Your task to perform on an android device: Search for a coffee table on Crate & Barrel Image 0: 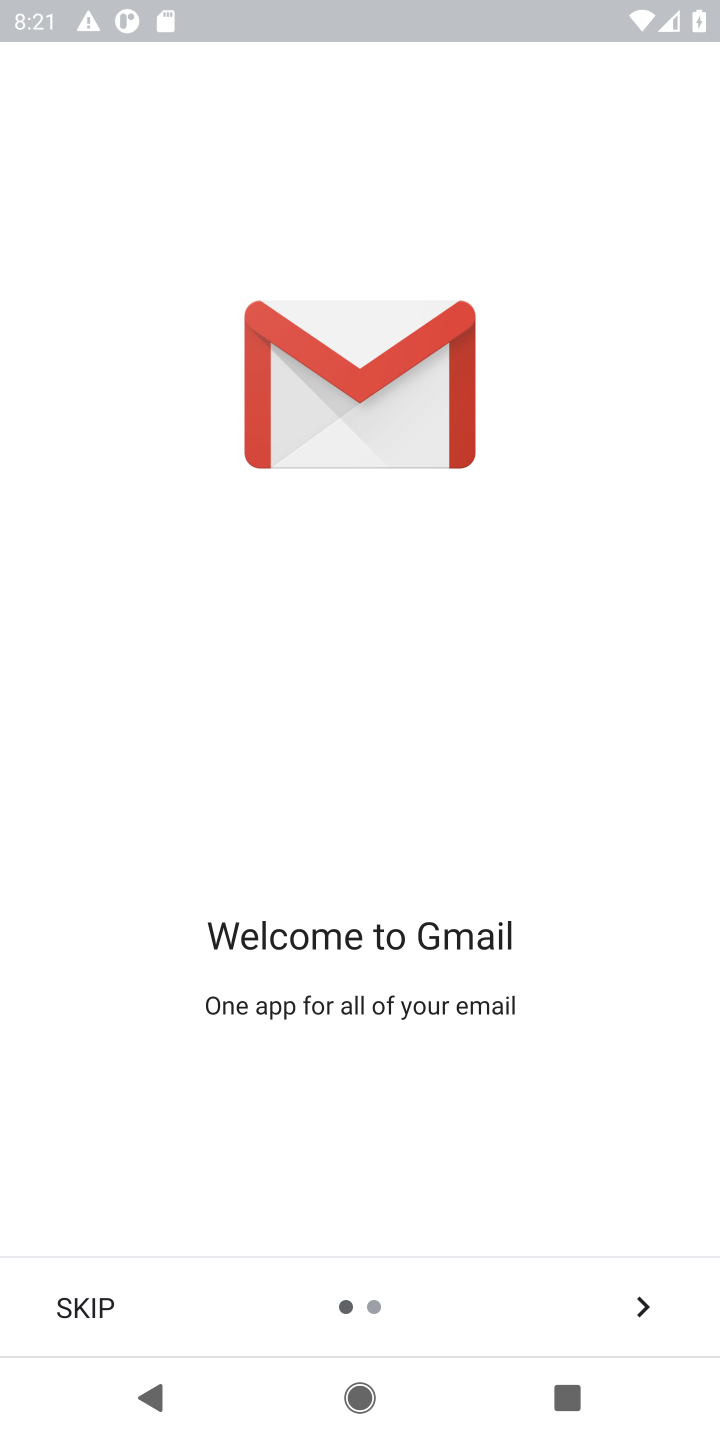
Step 0: press home button
Your task to perform on an android device: Search for a coffee table on Crate & Barrel Image 1: 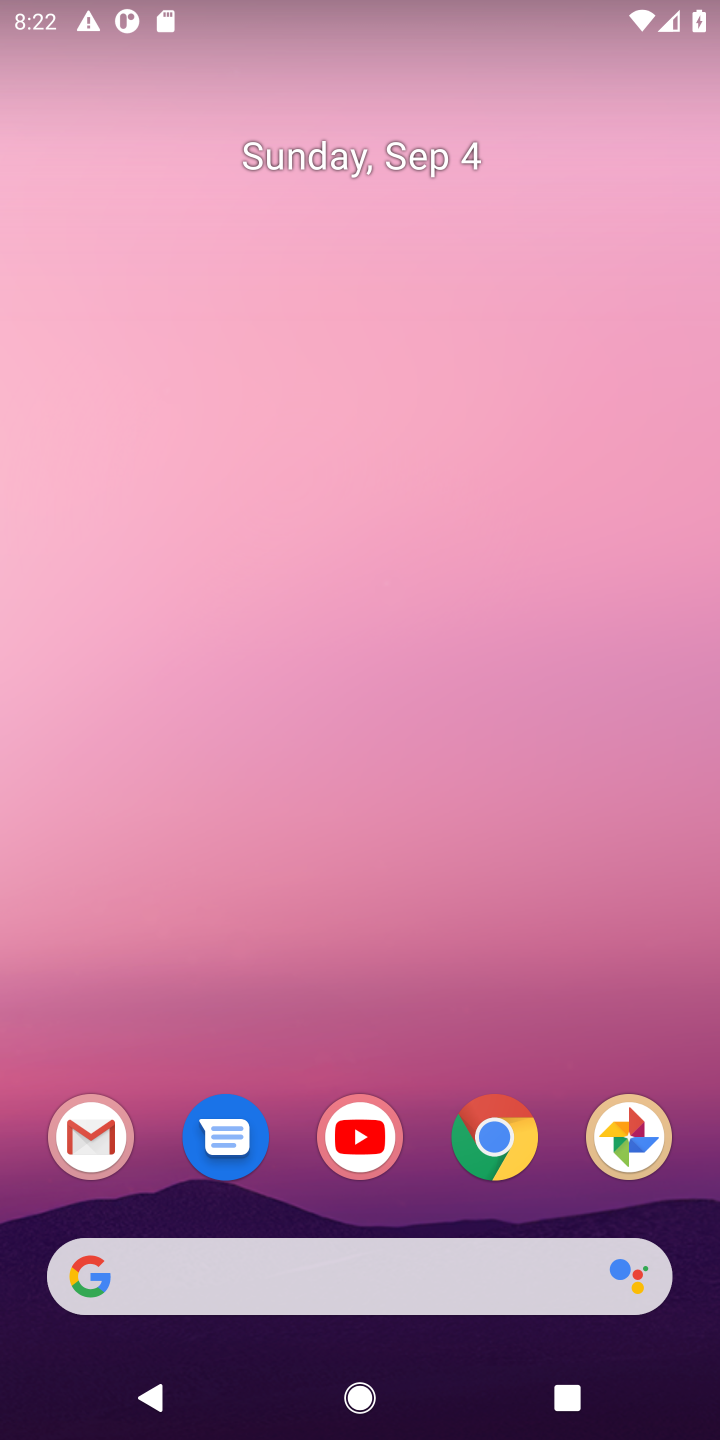
Step 1: click (498, 1137)
Your task to perform on an android device: Search for a coffee table on Crate & Barrel Image 2: 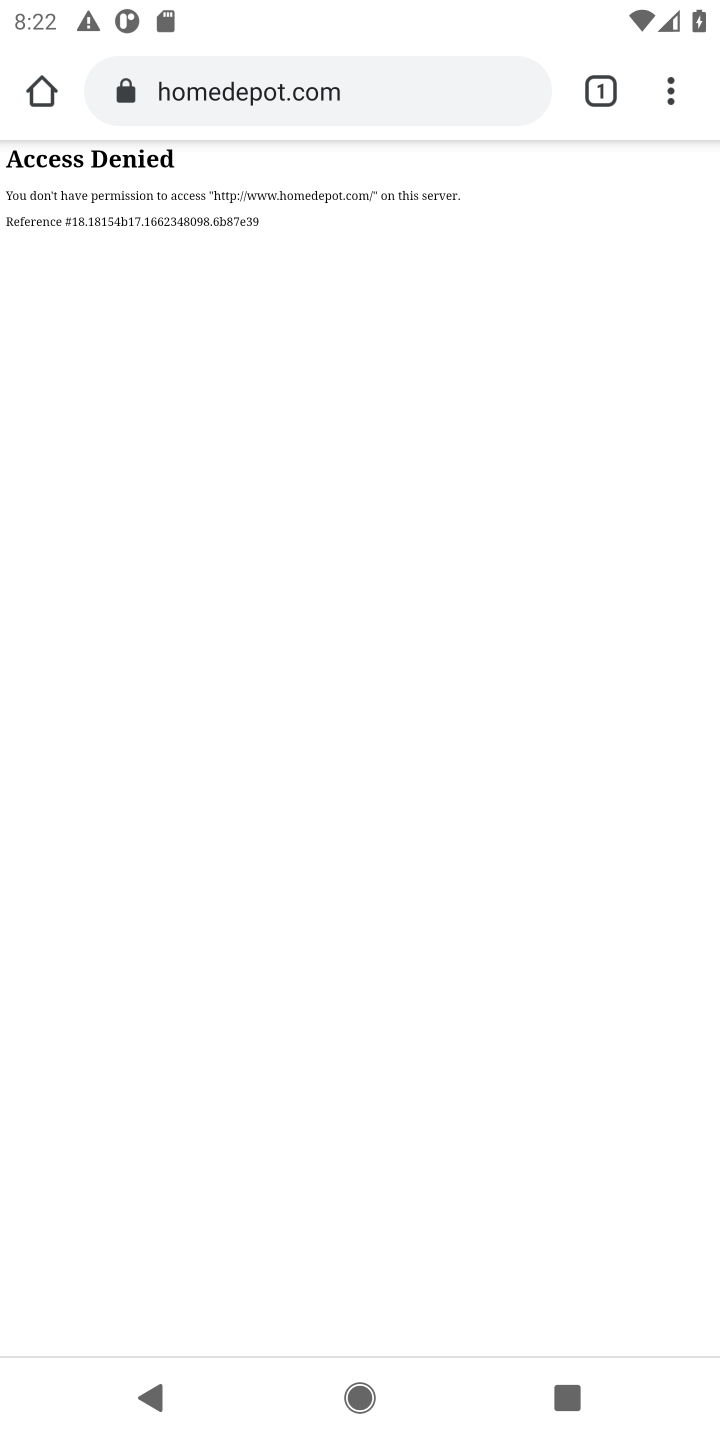
Step 2: click (436, 80)
Your task to perform on an android device: Search for a coffee table on Crate & Barrel Image 3: 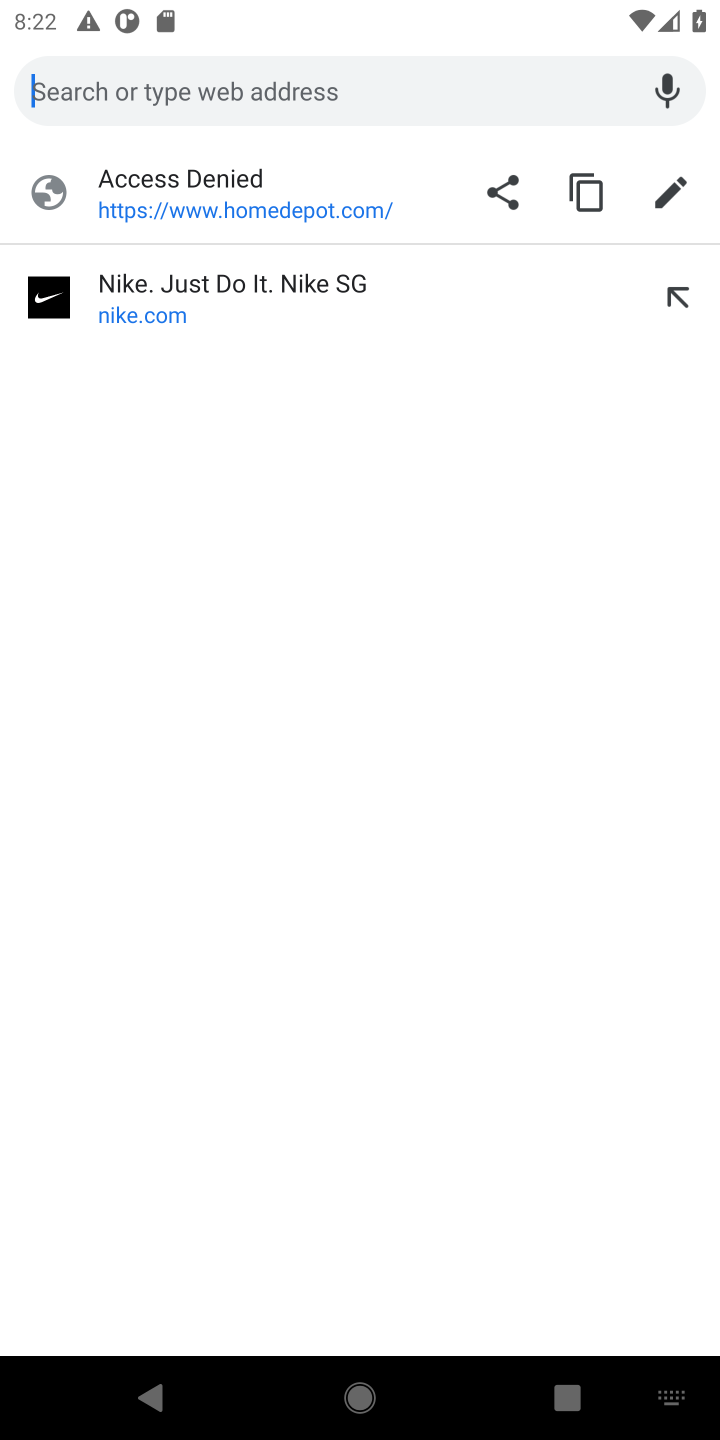
Step 3: type "Crate & Barrel"
Your task to perform on an android device: Search for a coffee table on Crate & Barrel Image 4: 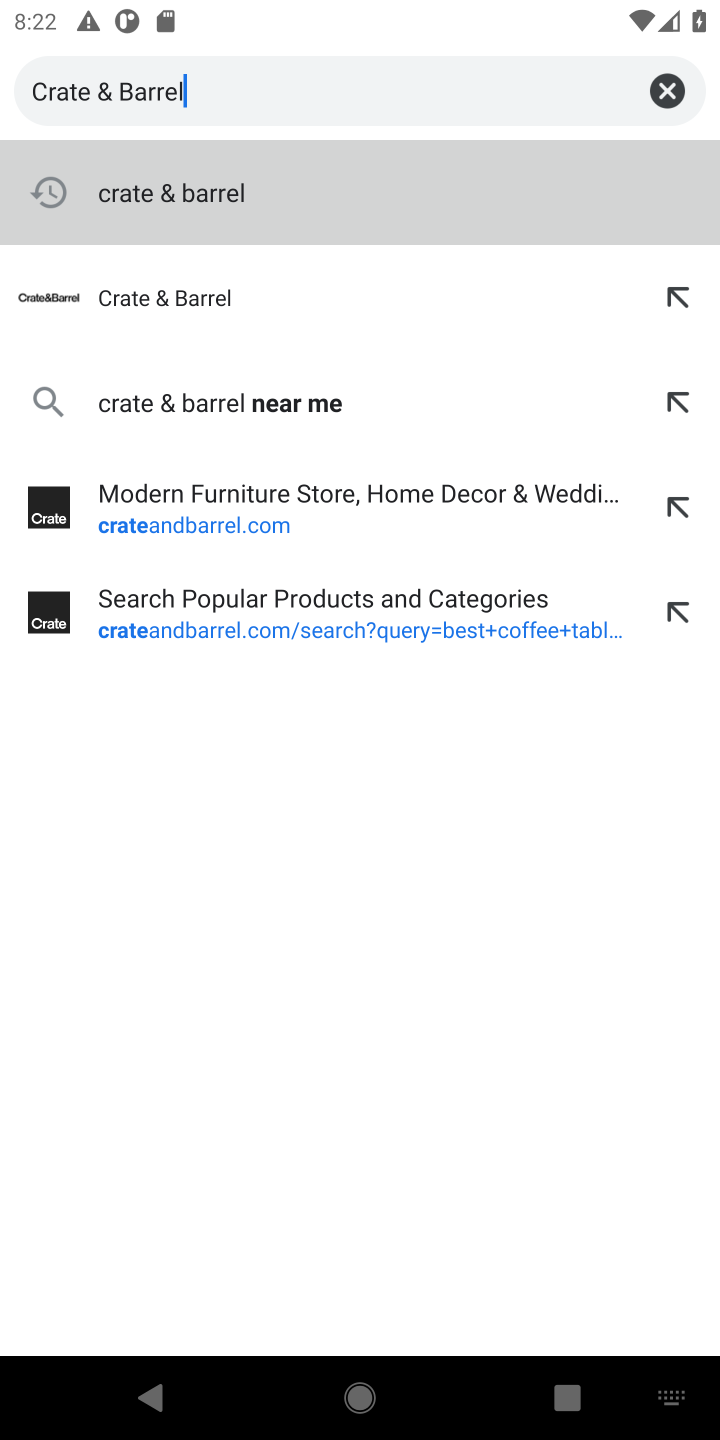
Step 4: click (177, 299)
Your task to perform on an android device: Search for a coffee table on Crate & Barrel Image 5: 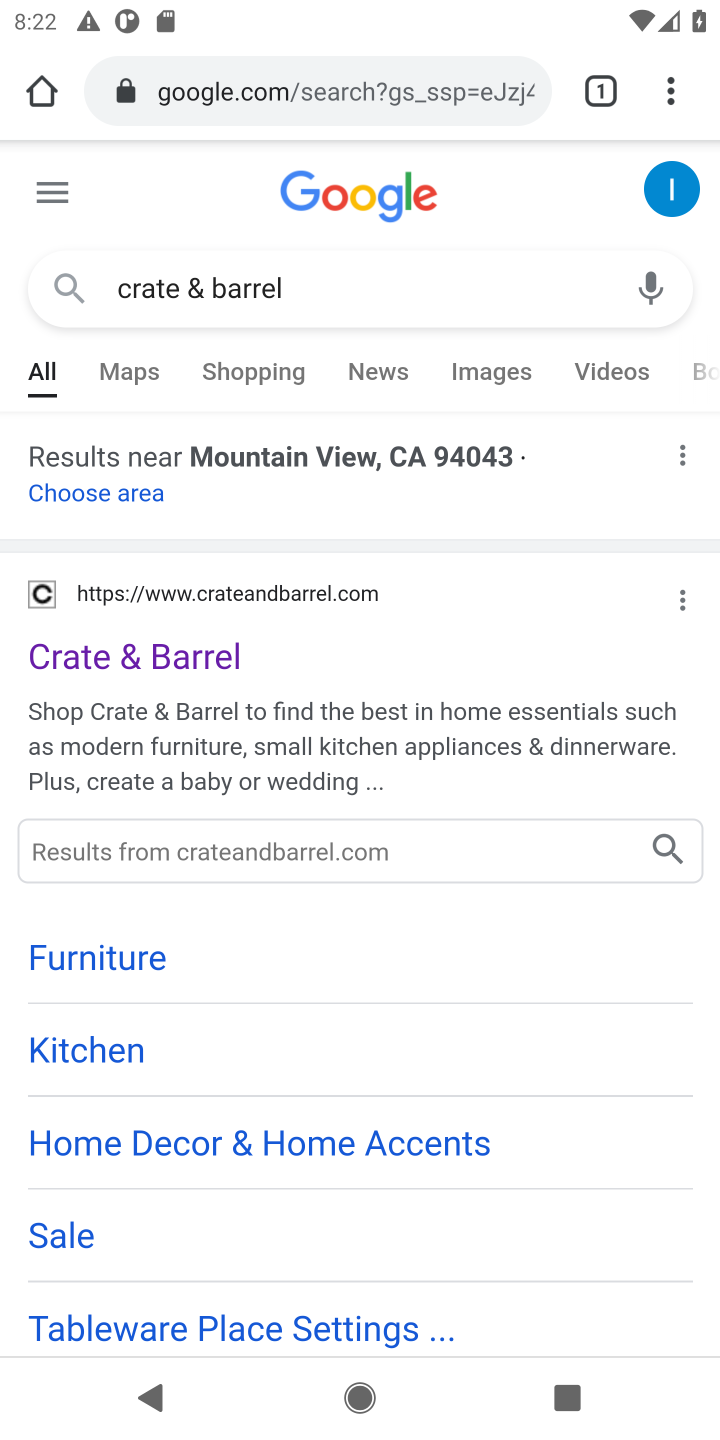
Step 5: click (173, 666)
Your task to perform on an android device: Search for a coffee table on Crate & Barrel Image 6: 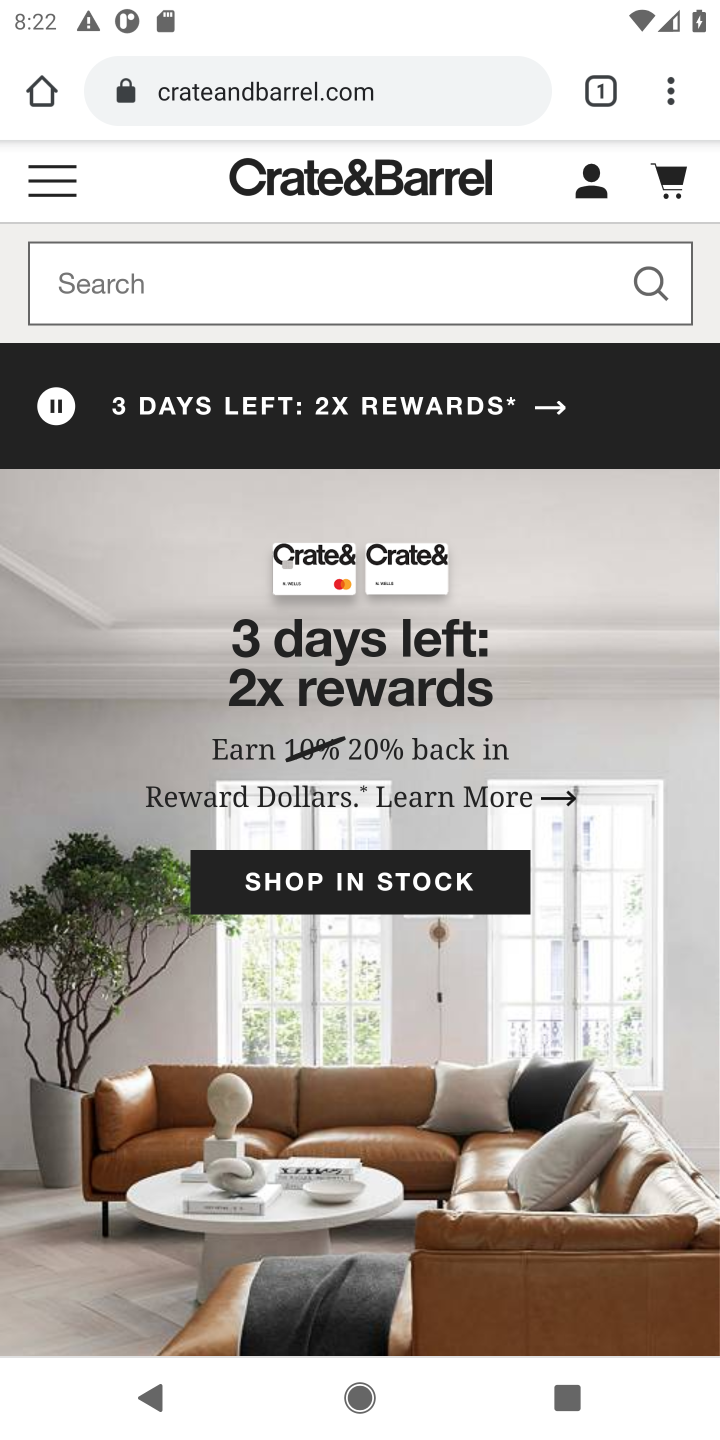
Step 6: click (231, 281)
Your task to perform on an android device: Search for a coffee table on Crate & Barrel Image 7: 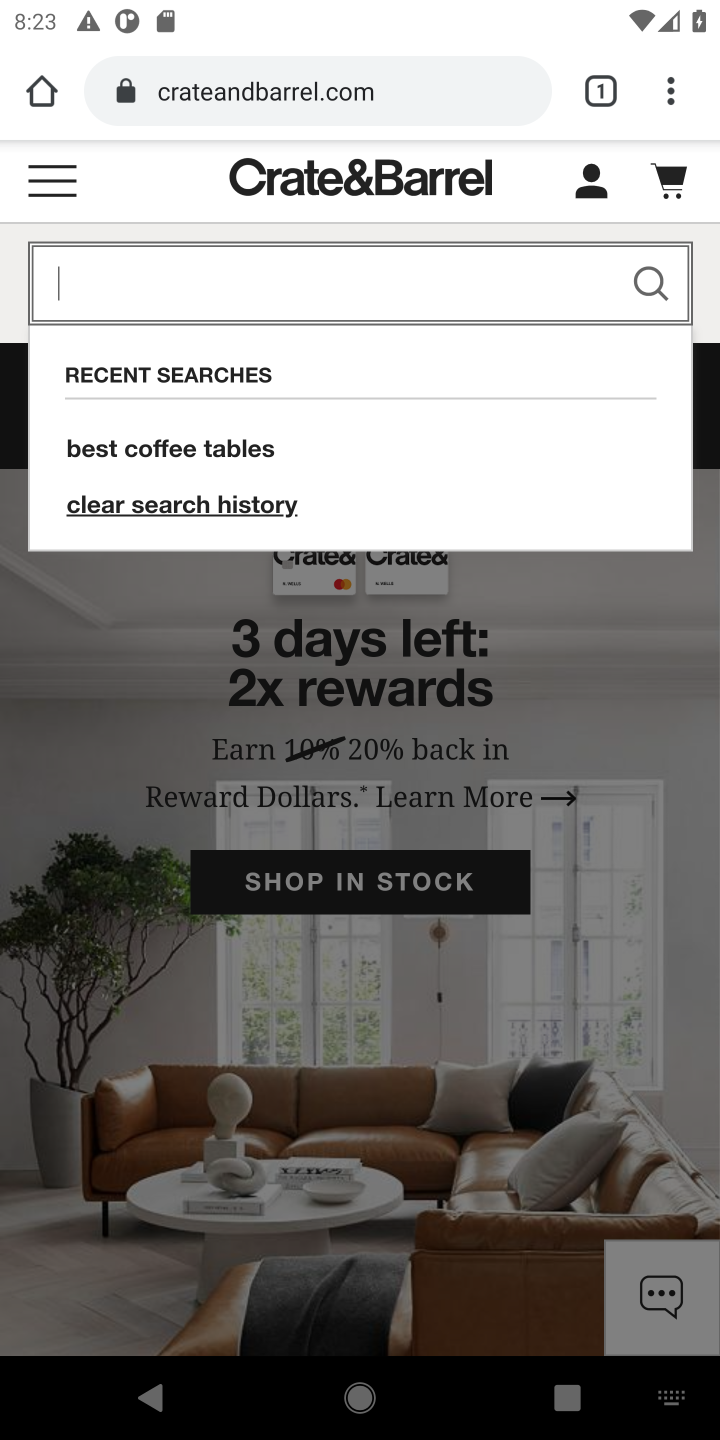
Step 7: click (178, 273)
Your task to perform on an android device: Search for a coffee table on Crate & Barrel Image 8: 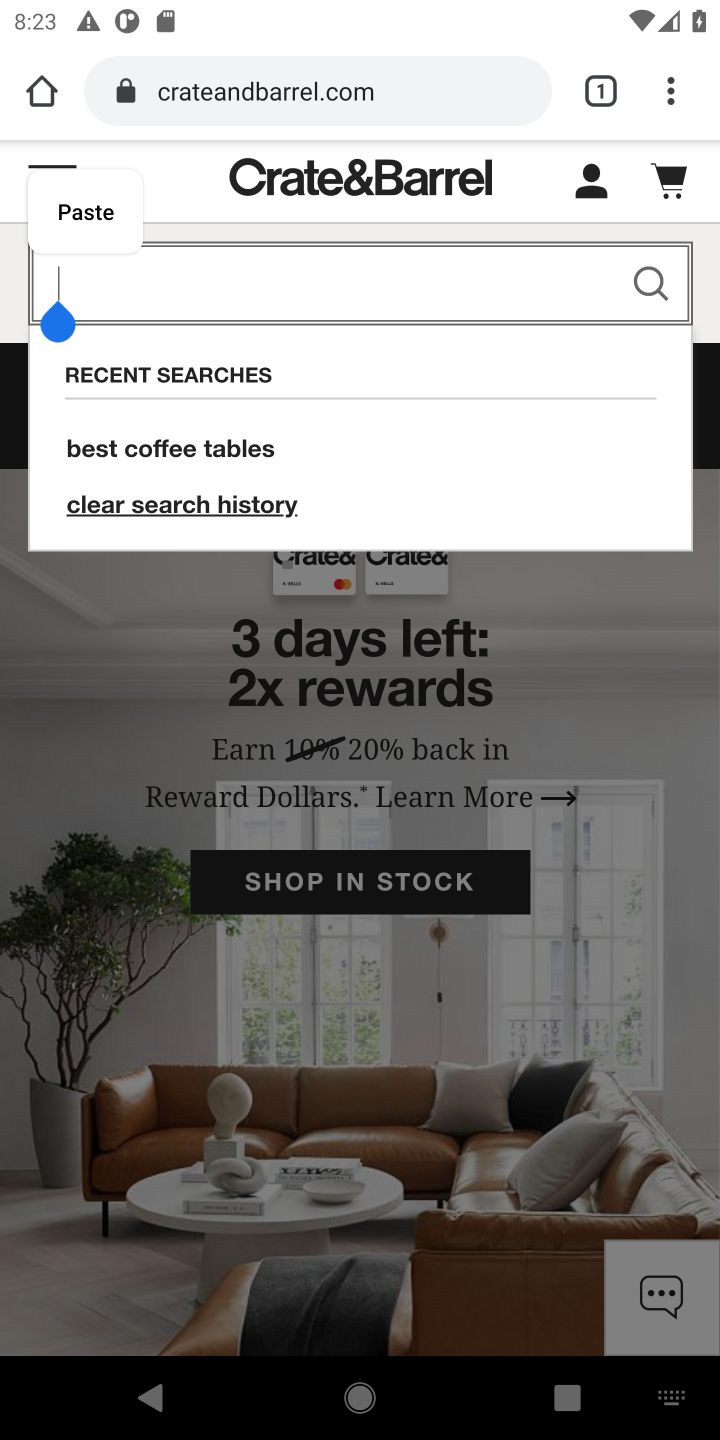
Step 8: type "coffee table"
Your task to perform on an android device: Search for a coffee table on Crate & Barrel Image 9: 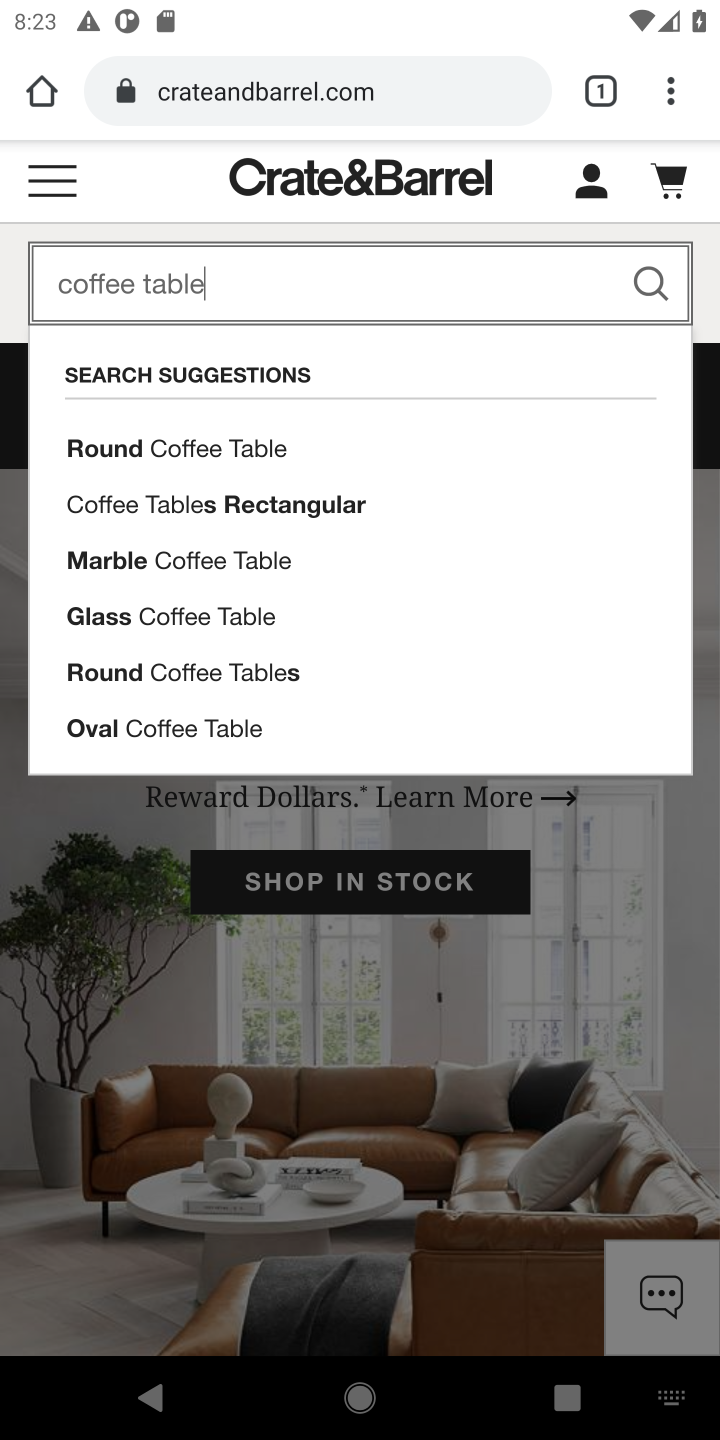
Step 9: click (653, 279)
Your task to perform on an android device: Search for a coffee table on Crate & Barrel Image 10: 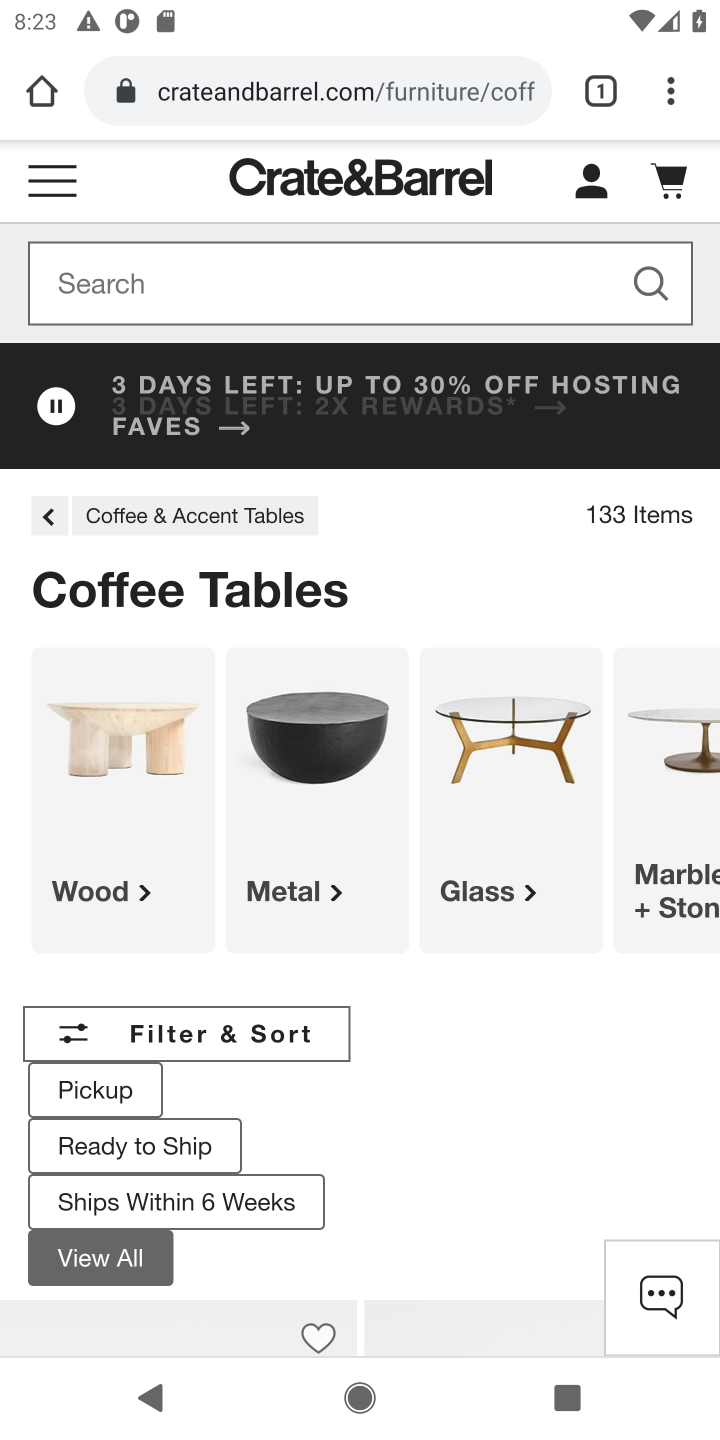
Step 10: task complete